Your task to perform on an android device: change the clock display to digital Image 0: 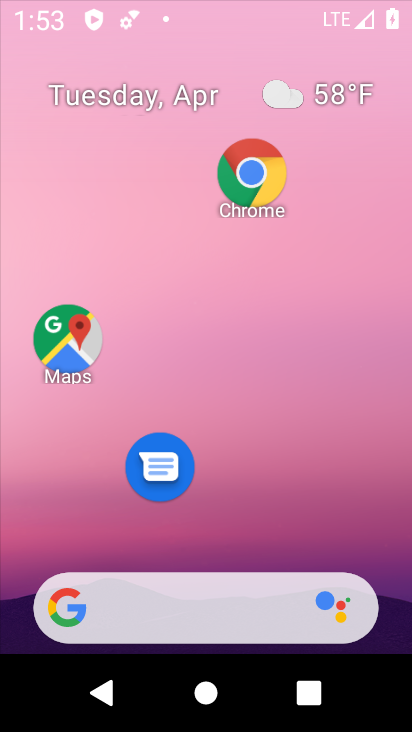
Step 0: click (240, 14)
Your task to perform on an android device: change the clock display to digital Image 1: 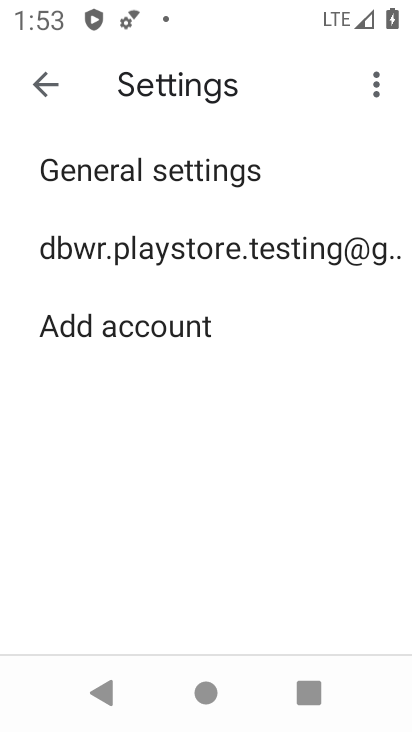
Step 1: press home button
Your task to perform on an android device: change the clock display to digital Image 2: 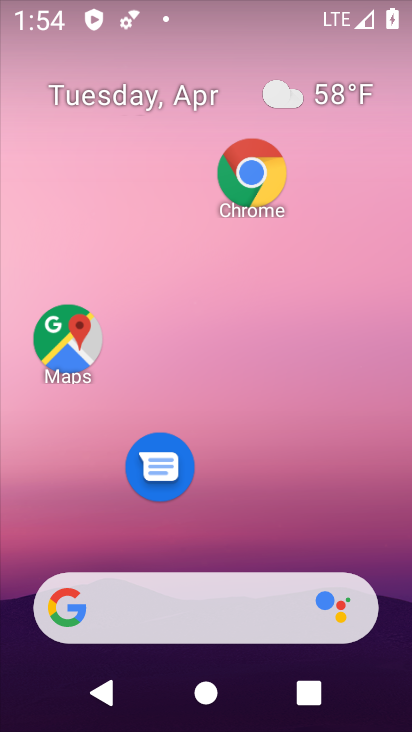
Step 2: drag from (238, 596) to (276, 189)
Your task to perform on an android device: change the clock display to digital Image 3: 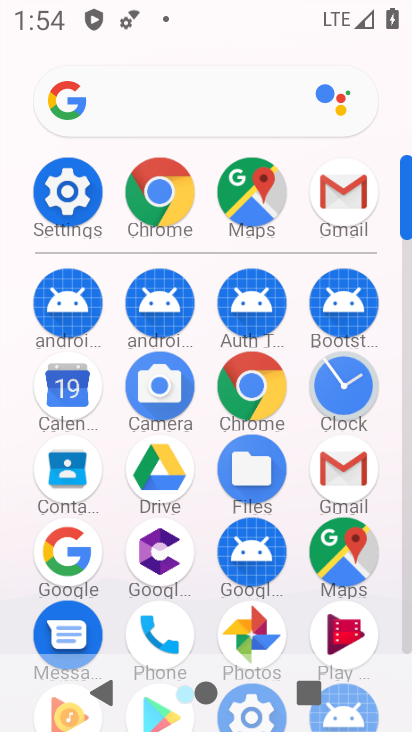
Step 3: click (334, 393)
Your task to perform on an android device: change the clock display to digital Image 4: 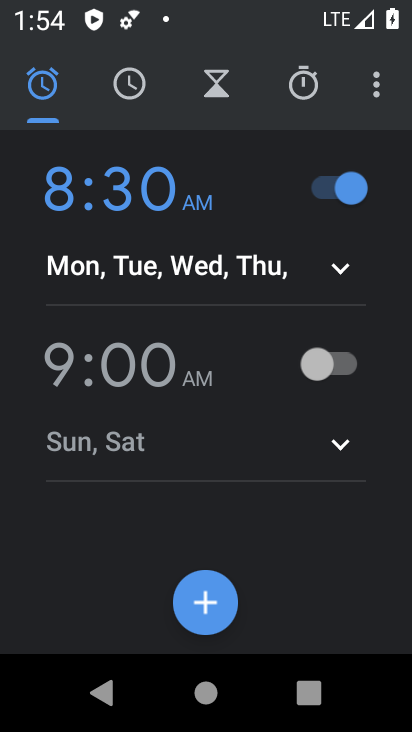
Step 4: click (366, 79)
Your task to perform on an android device: change the clock display to digital Image 5: 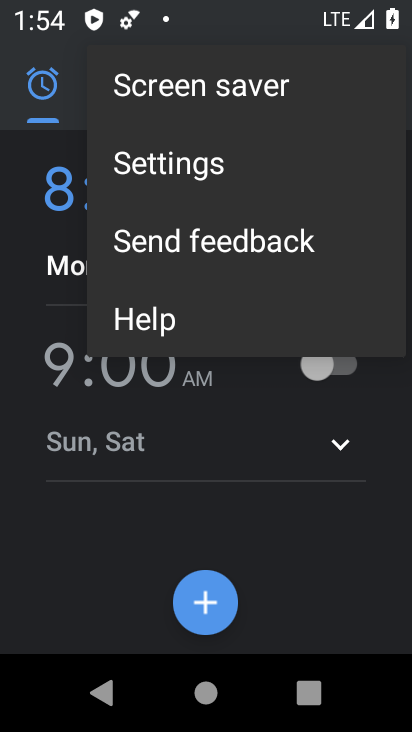
Step 5: click (160, 155)
Your task to perform on an android device: change the clock display to digital Image 6: 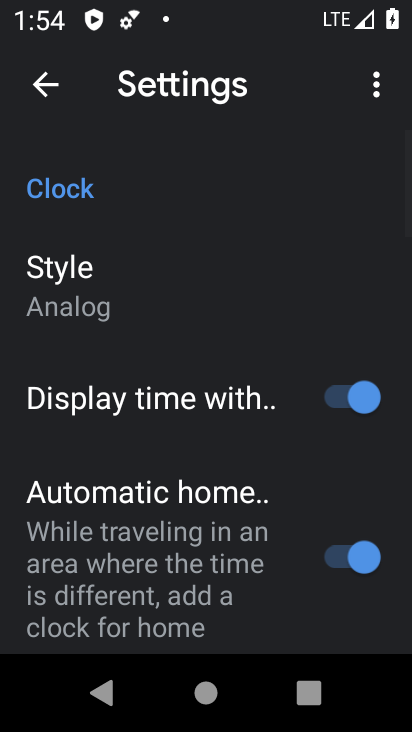
Step 6: click (111, 297)
Your task to perform on an android device: change the clock display to digital Image 7: 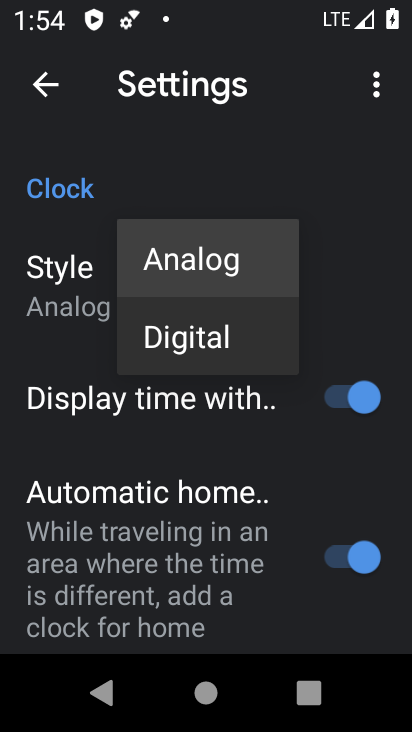
Step 7: click (155, 338)
Your task to perform on an android device: change the clock display to digital Image 8: 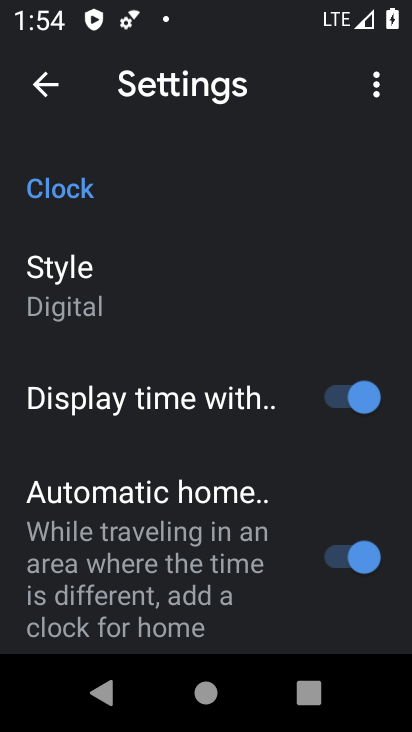
Step 8: task complete